Your task to perform on an android device: delete the emails in spam in the gmail app Image 0: 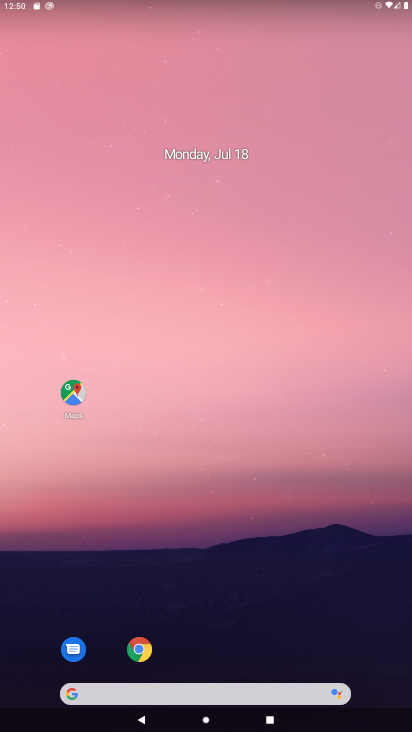
Step 0: drag from (60, 608) to (199, 36)
Your task to perform on an android device: delete the emails in spam in the gmail app Image 1: 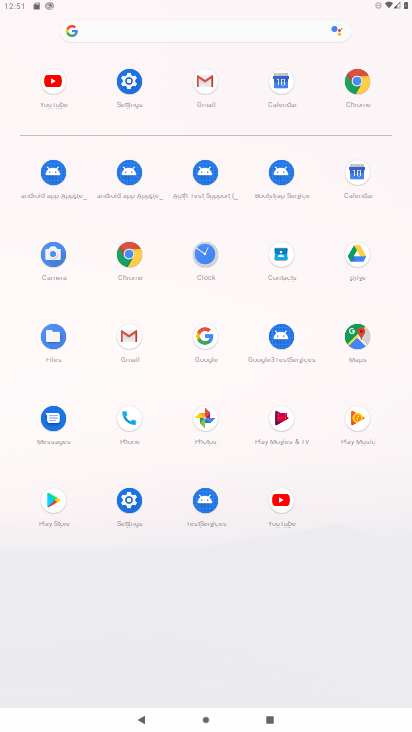
Step 1: click (146, 343)
Your task to perform on an android device: delete the emails in spam in the gmail app Image 2: 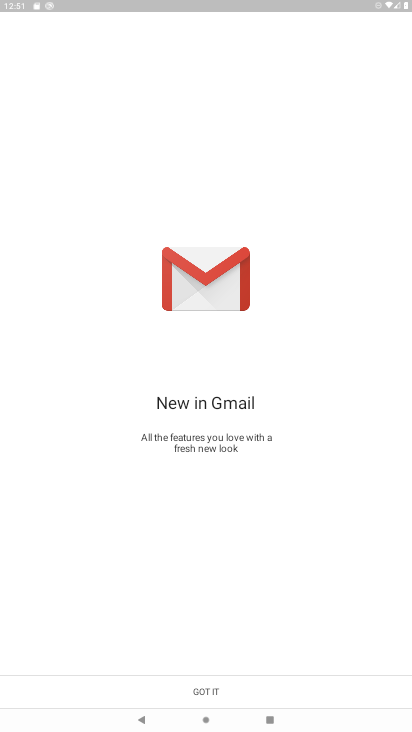
Step 2: click (203, 697)
Your task to perform on an android device: delete the emails in spam in the gmail app Image 3: 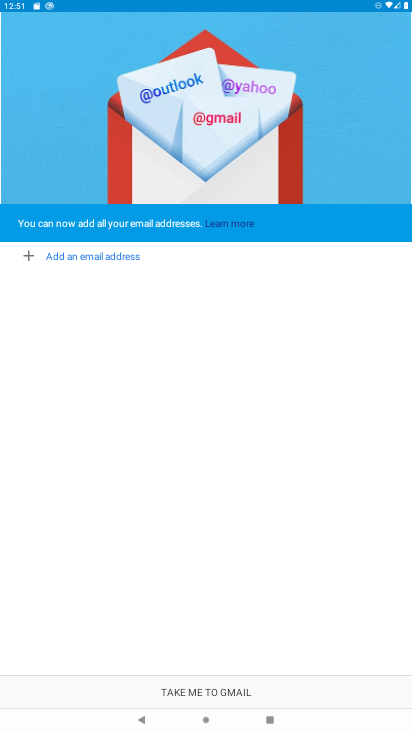
Step 3: click (207, 688)
Your task to perform on an android device: delete the emails in spam in the gmail app Image 4: 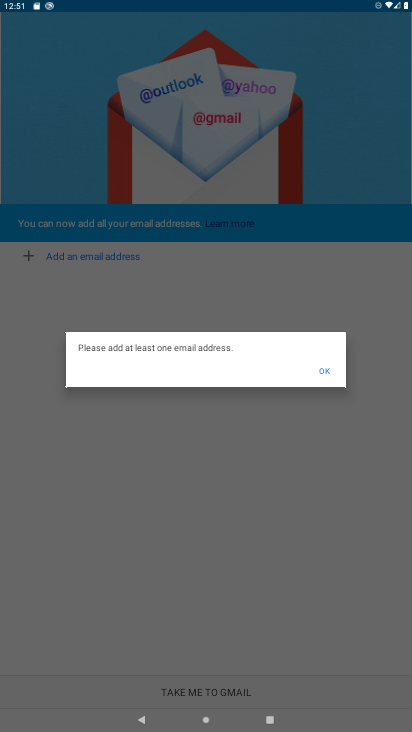
Step 4: task complete